Your task to perform on an android device: refresh tabs in the chrome app Image 0: 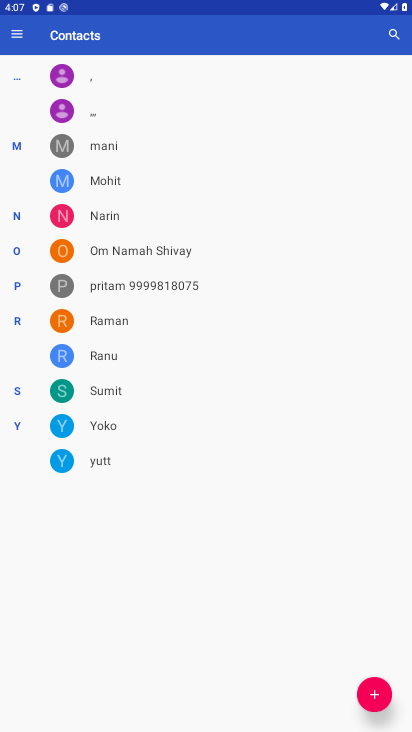
Step 0: drag from (244, 722) to (198, 376)
Your task to perform on an android device: refresh tabs in the chrome app Image 1: 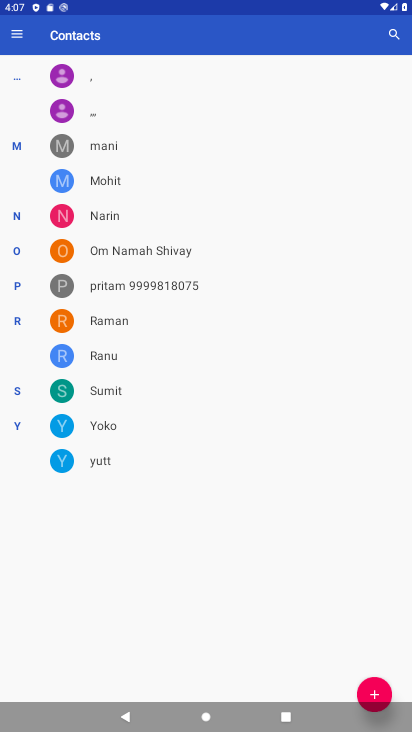
Step 1: press back button
Your task to perform on an android device: refresh tabs in the chrome app Image 2: 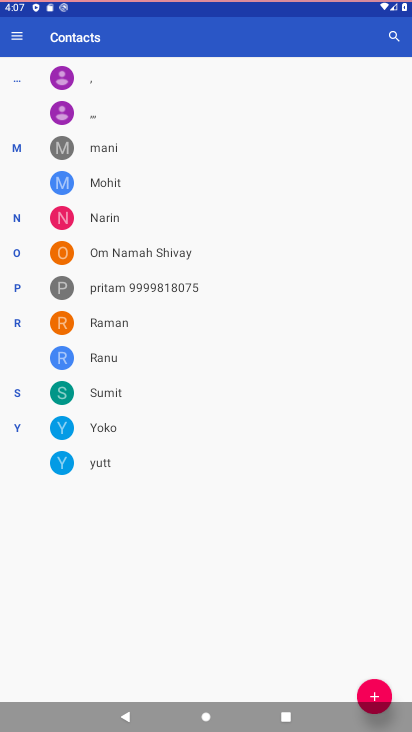
Step 2: press back button
Your task to perform on an android device: refresh tabs in the chrome app Image 3: 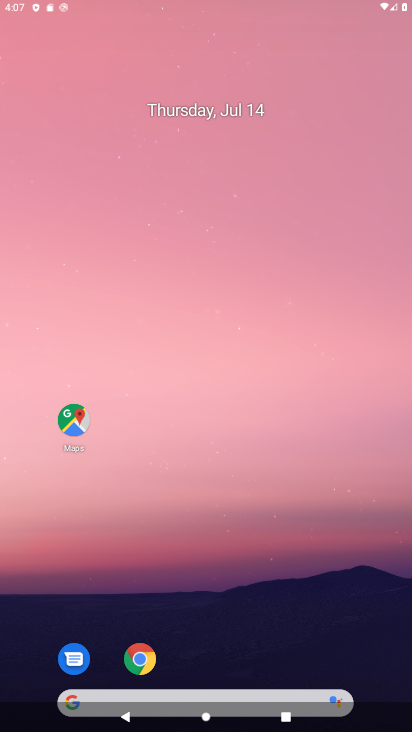
Step 3: press back button
Your task to perform on an android device: refresh tabs in the chrome app Image 4: 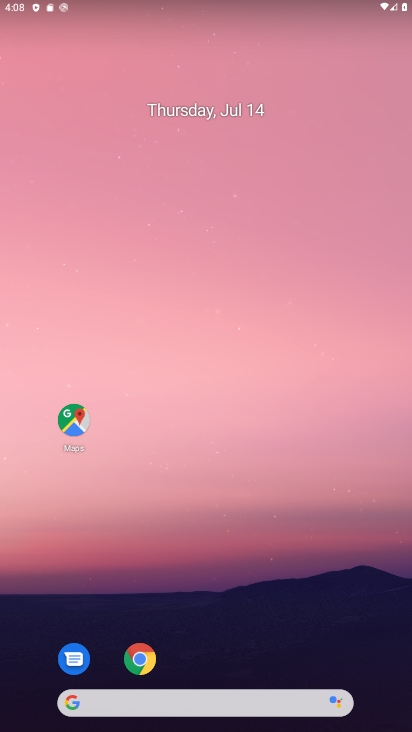
Step 4: drag from (240, 622) to (217, 3)
Your task to perform on an android device: refresh tabs in the chrome app Image 5: 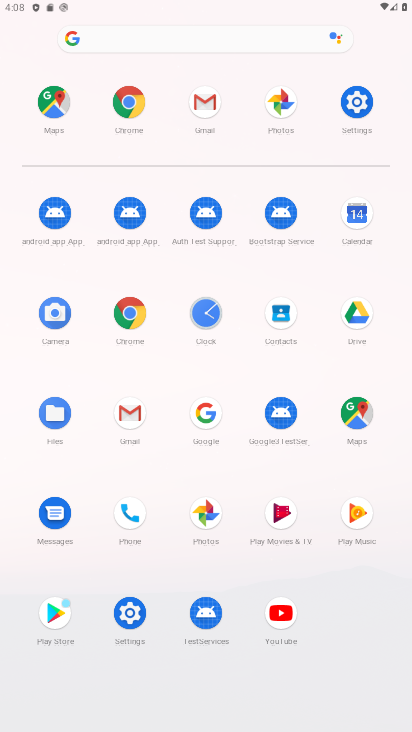
Step 5: click (125, 330)
Your task to perform on an android device: refresh tabs in the chrome app Image 6: 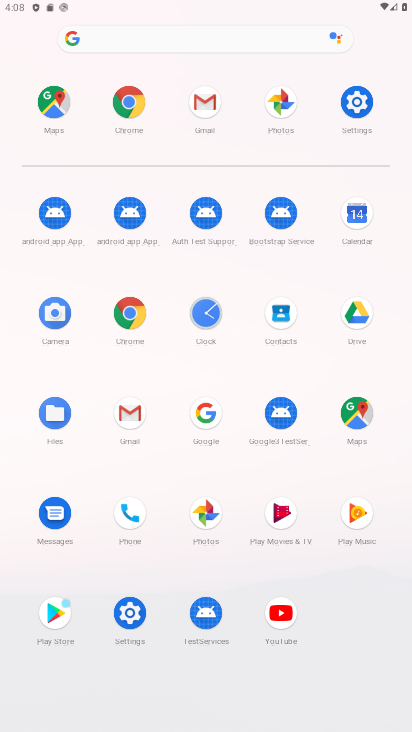
Step 6: click (129, 325)
Your task to perform on an android device: refresh tabs in the chrome app Image 7: 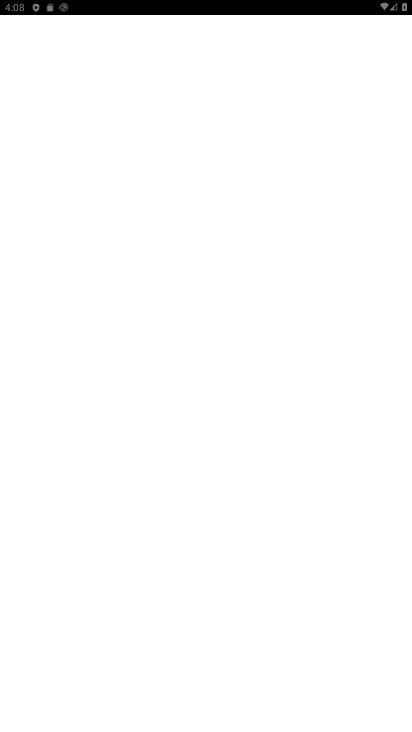
Step 7: click (132, 324)
Your task to perform on an android device: refresh tabs in the chrome app Image 8: 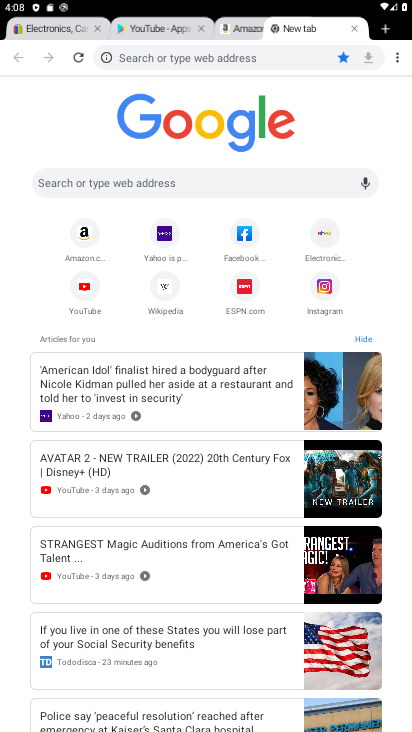
Step 8: click (77, 58)
Your task to perform on an android device: refresh tabs in the chrome app Image 9: 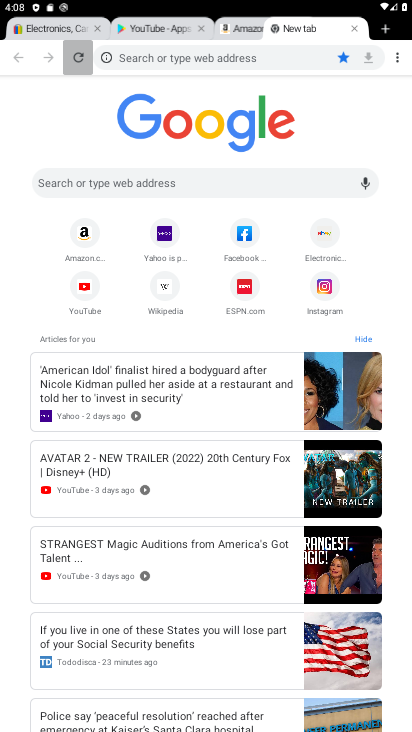
Step 9: click (79, 55)
Your task to perform on an android device: refresh tabs in the chrome app Image 10: 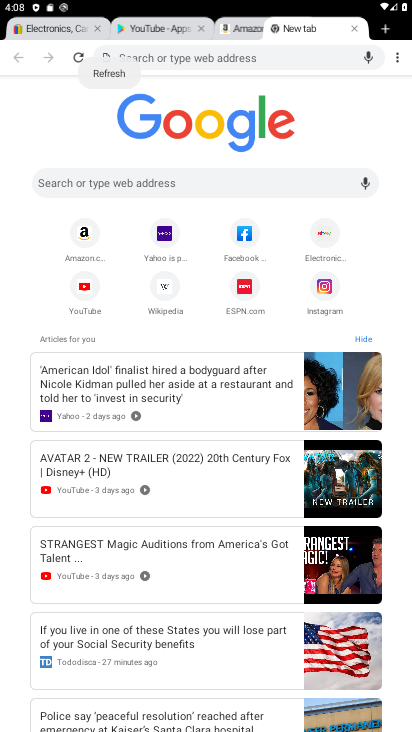
Step 10: task complete